Your task to perform on an android device: Open location settings Image 0: 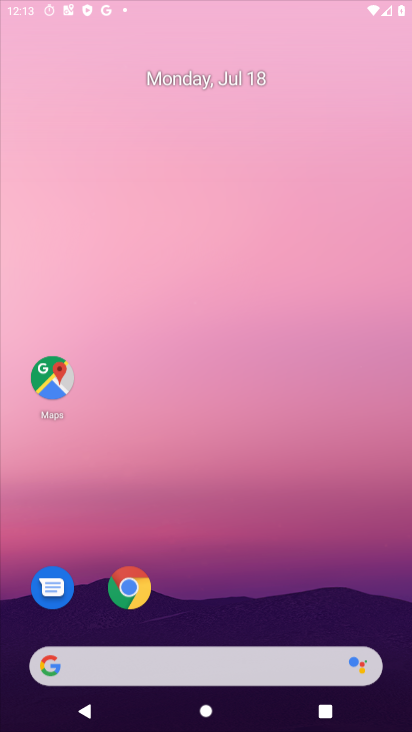
Step 0: press home button
Your task to perform on an android device: Open location settings Image 1: 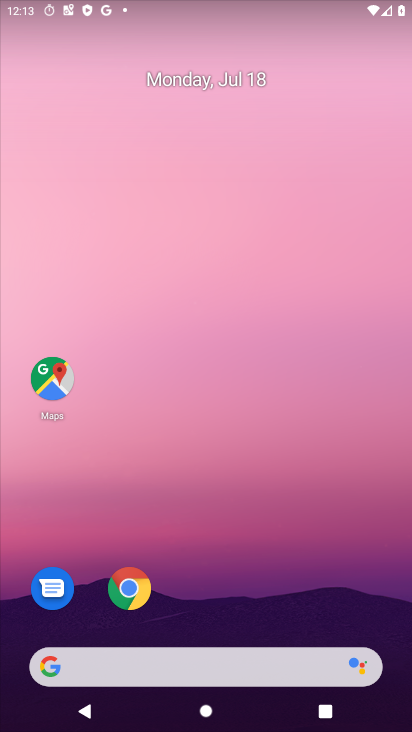
Step 1: drag from (326, 573) to (364, 236)
Your task to perform on an android device: Open location settings Image 2: 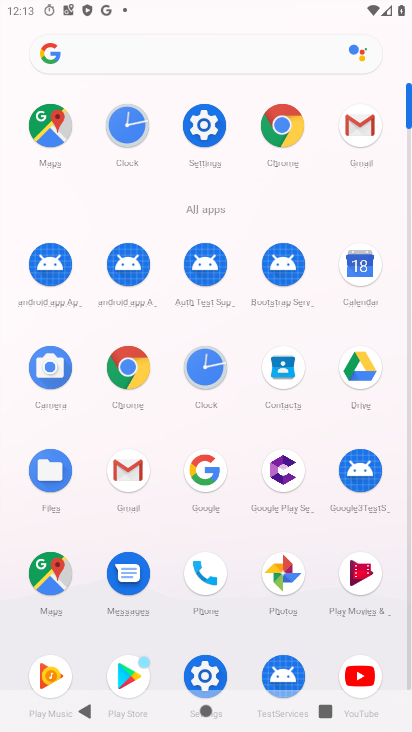
Step 2: click (210, 137)
Your task to perform on an android device: Open location settings Image 3: 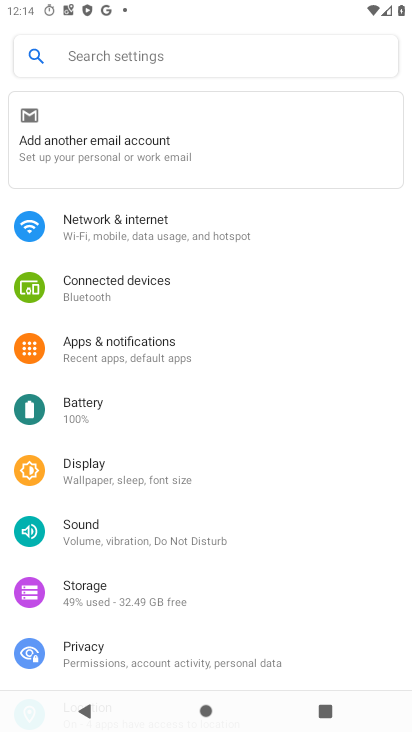
Step 3: drag from (154, 592) to (154, 510)
Your task to perform on an android device: Open location settings Image 4: 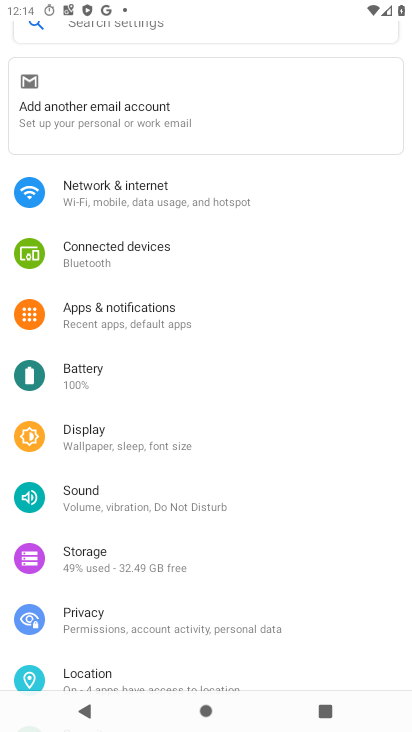
Step 4: click (108, 678)
Your task to perform on an android device: Open location settings Image 5: 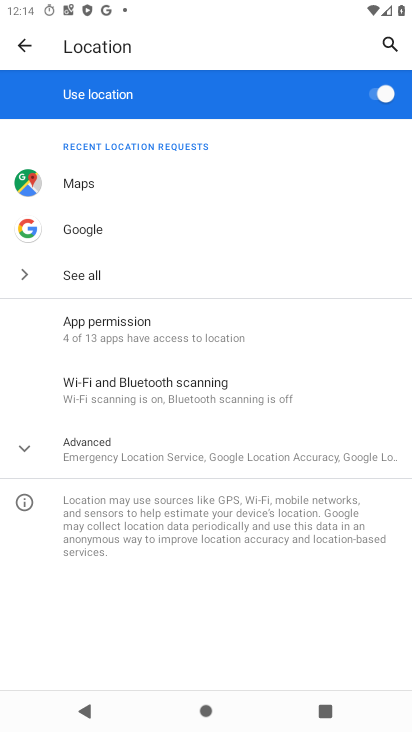
Step 5: task complete